Your task to perform on an android device: toggle sleep mode Image 0: 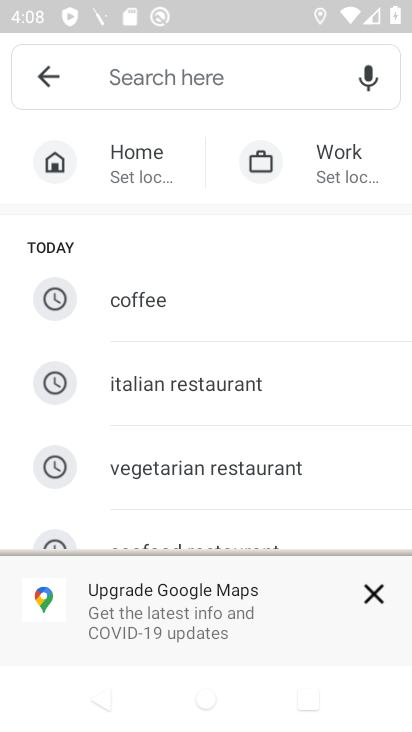
Step 0: press home button
Your task to perform on an android device: toggle sleep mode Image 1: 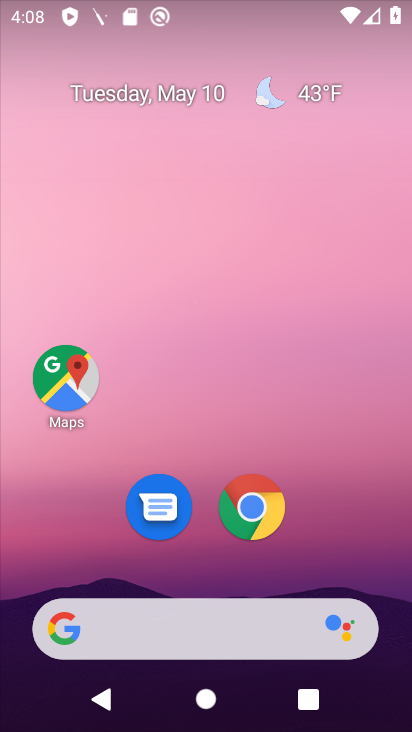
Step 1: drag from (247, 8) to (337, 14)
Your task to perform on an android device: toggle sleep mode Image 2: 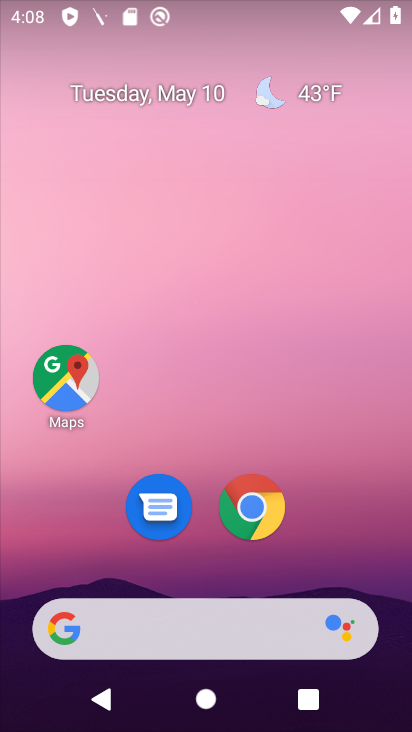
Step 2: drag from (190, 598) to (409, 45)
Your task to perform on an android device: toggle sleep mode Image 3: 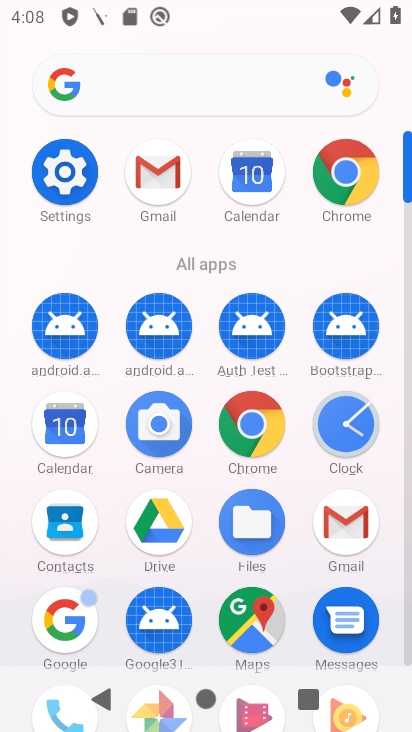
Step 3: click (72, 171)
Your task to perform on an android device: toggle sleep mode Image 4: 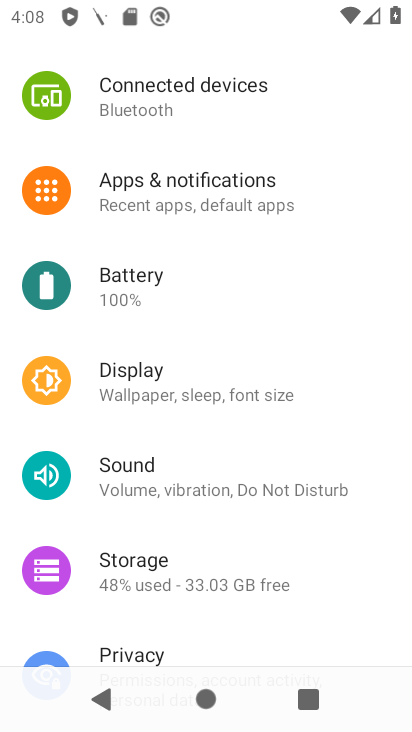
Step 4: click (159, 390)
Your task to perform on an android device: toggle sleep mode Image 5: 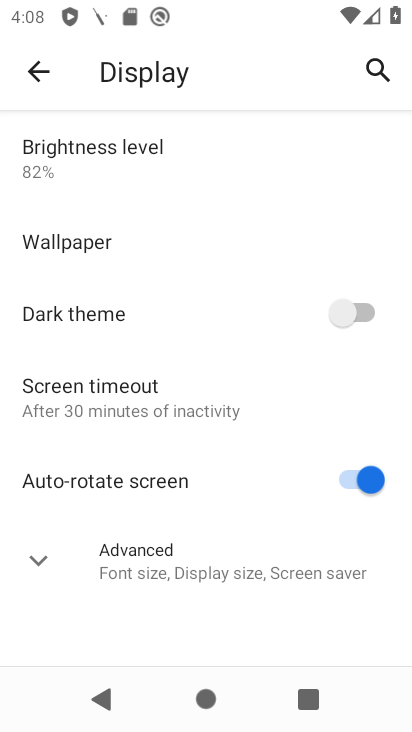
Step 5: click (159, 405)
Your task to perform on an android device: toggle sleep mode Image 6: 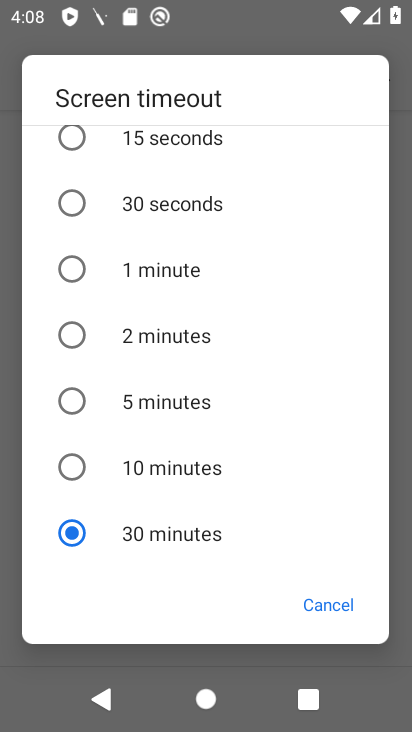
Step 6: click (146, 402)
Your task to perform on an android device: toggle sleep mode Image 7: 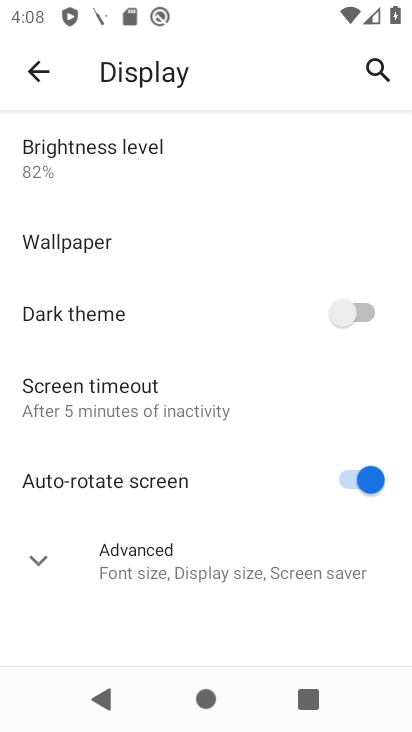
Step 7: task complete